Your task to perform on an android device: delete the emails in spam in the gmail app Image 0: 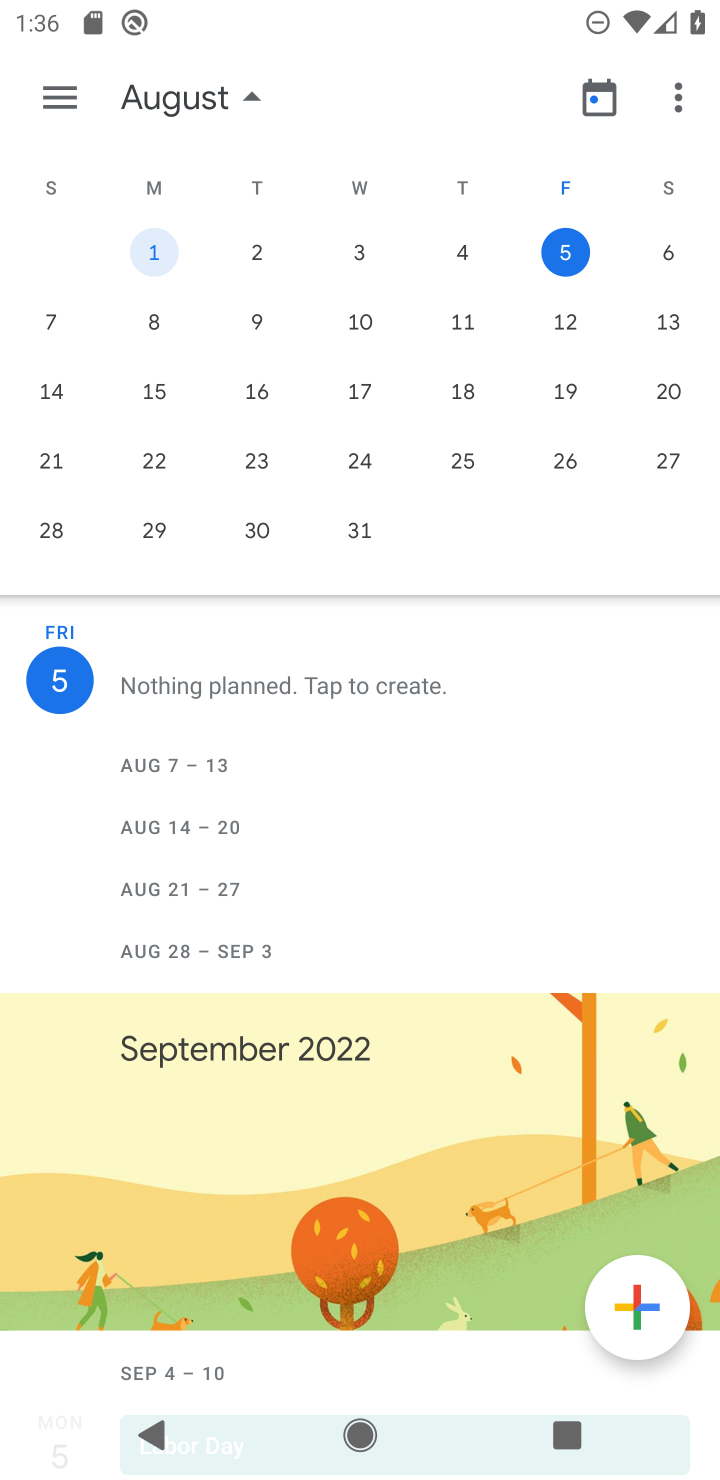
Step 0: press back button
Your task to perform on an android device: delete the emails in spam in the gmail app Image 1: 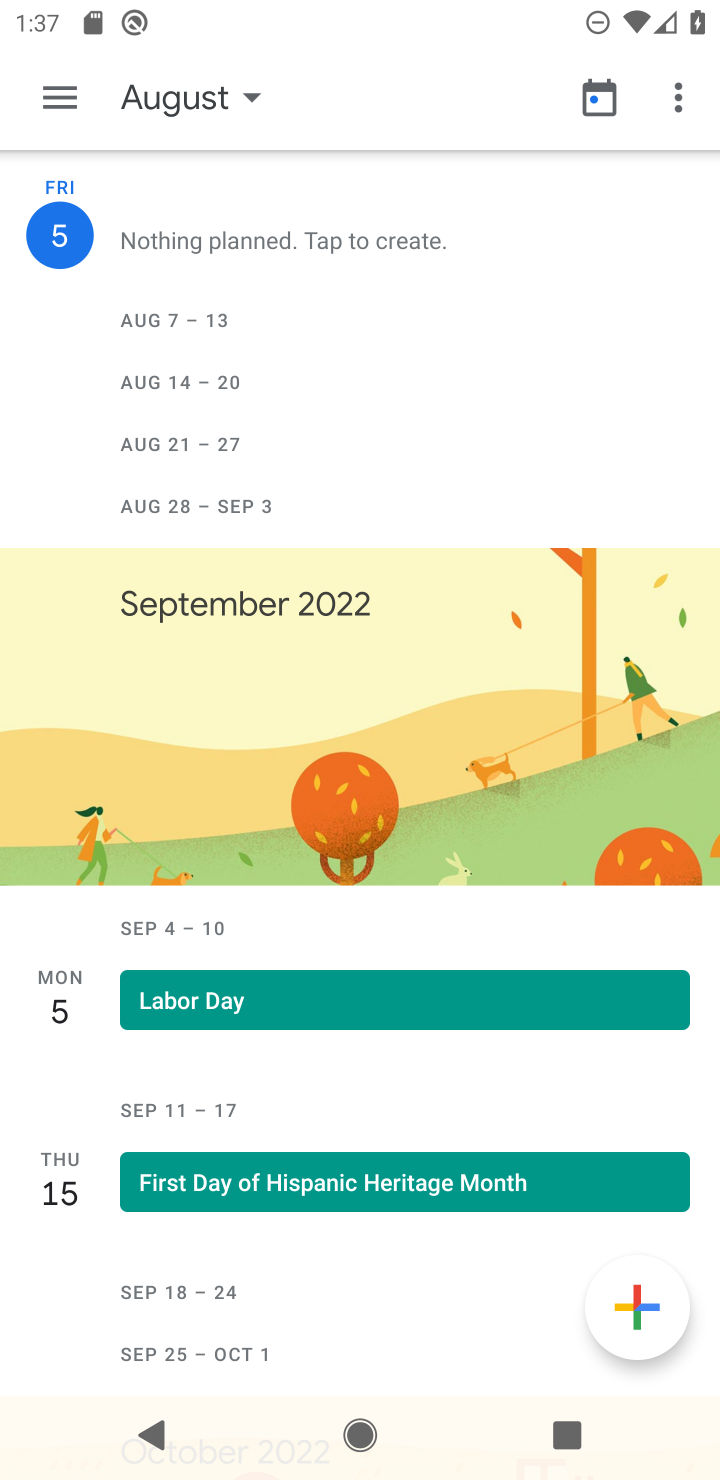
Step 1: press back button
Your task to perform on an android device: delete the emails in spam in the gmail app Image 2: 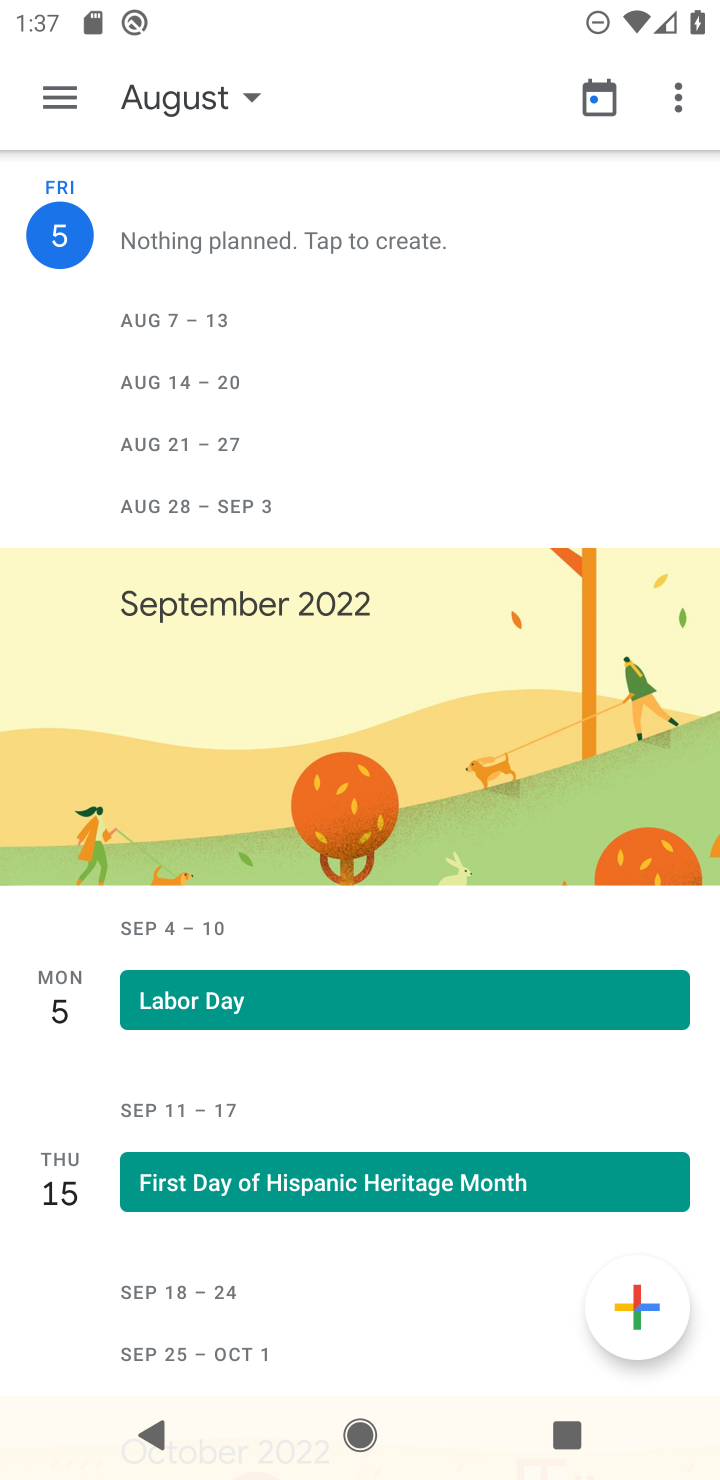
Step 2: press back button
Your task to perform on an android device: delete the emails in spam in the gmail app Image 3: 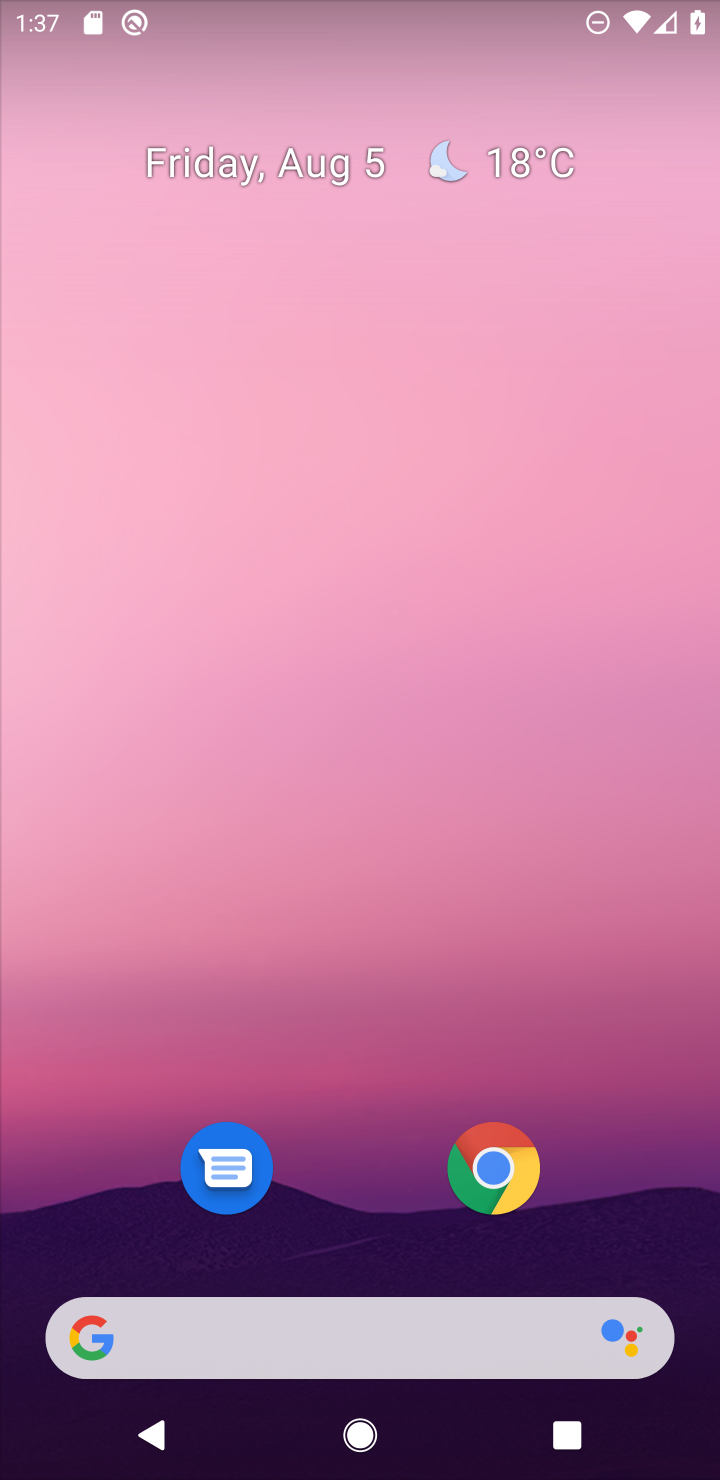
Step 3: drag from (385, 1206) to (584, 51)
Your task to perform on an android device: delete the emails in spam in the gmail app Image 4: 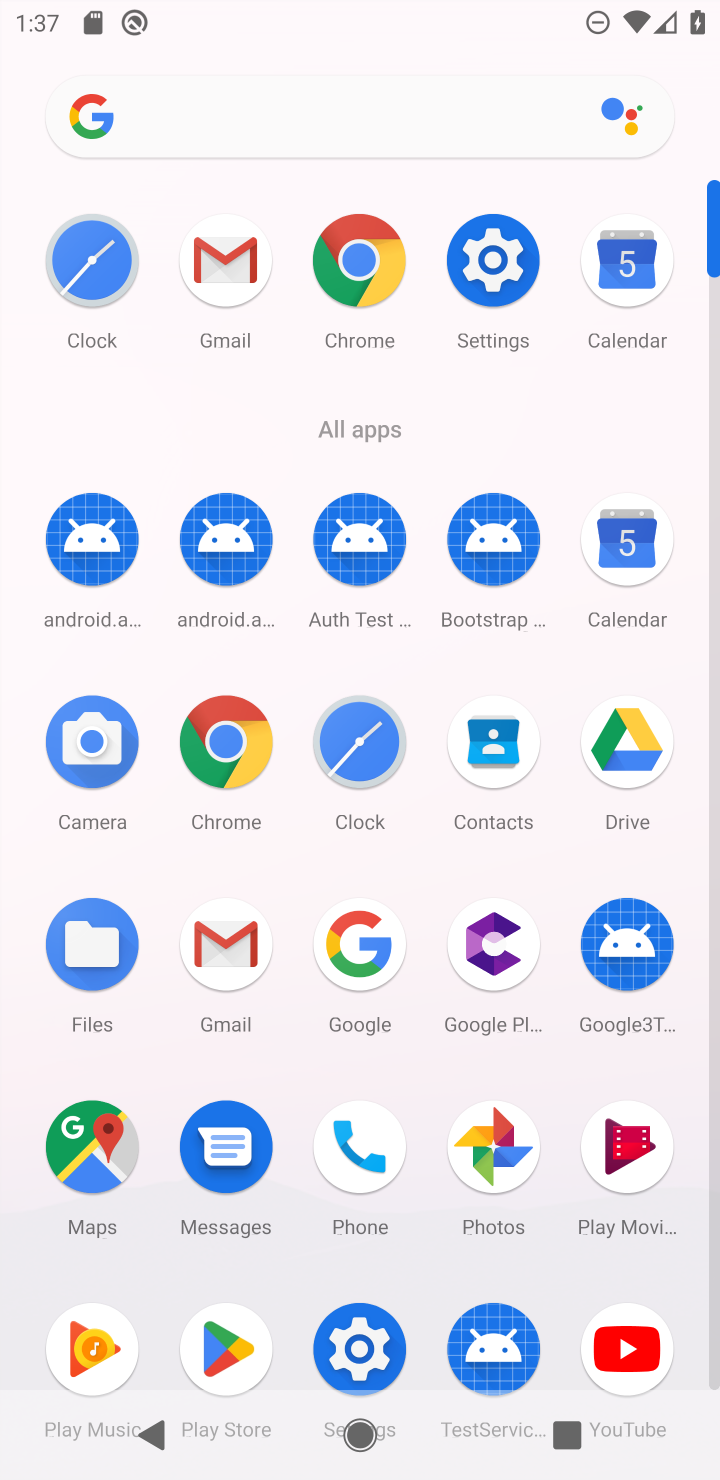
Step 4: click (226, 252)
Your task to perform on an android device: delete the emails in spam in the gmail app Image 5: 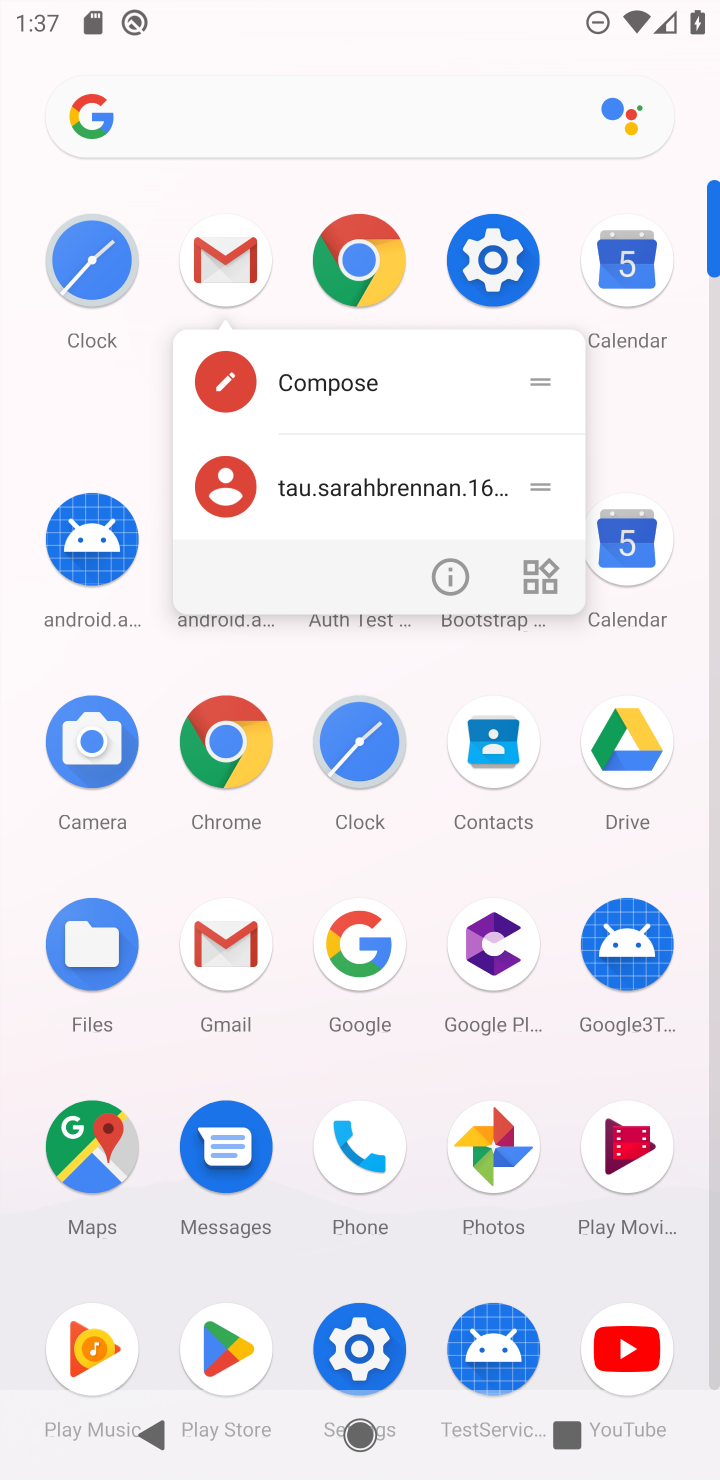
Step 5: click (225, 265)
Your task to perform on an android device: delete the emails in spam in the gmail app Image 6: 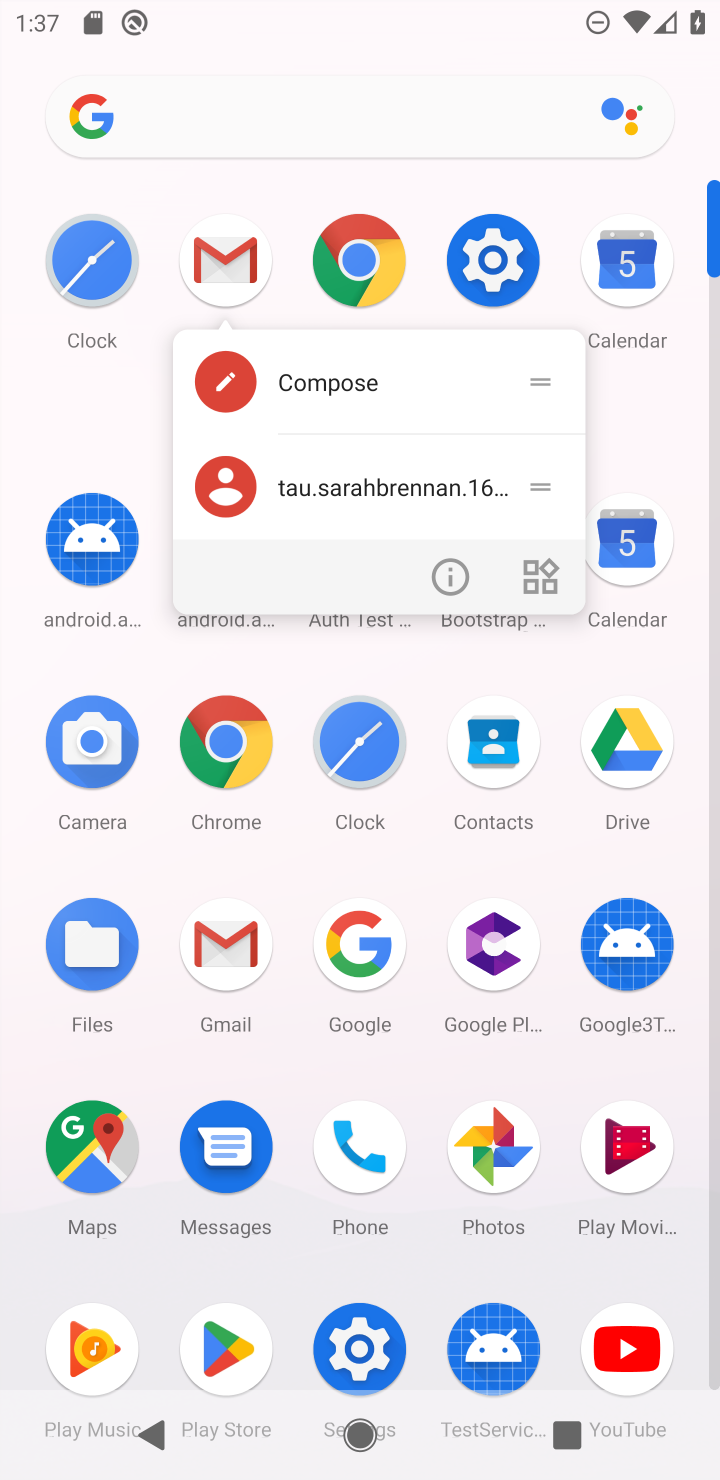
Step 6: click (211, 259)
Your task to perform on an android device: delete the emails in spam in the gmail app Image 7: 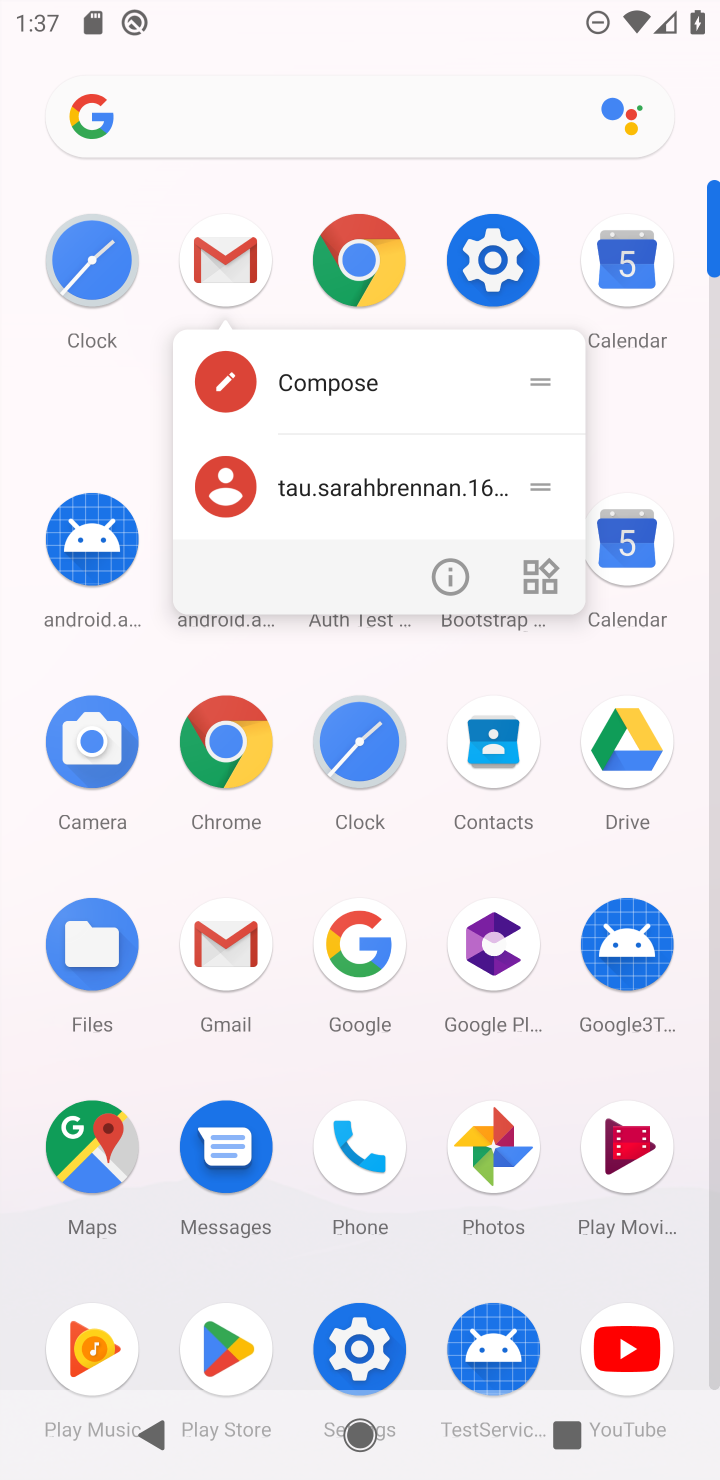
Step 7: click (213, 255)
Your task to perform on an android device: delete the emails in spam in the gmail app Image 8: 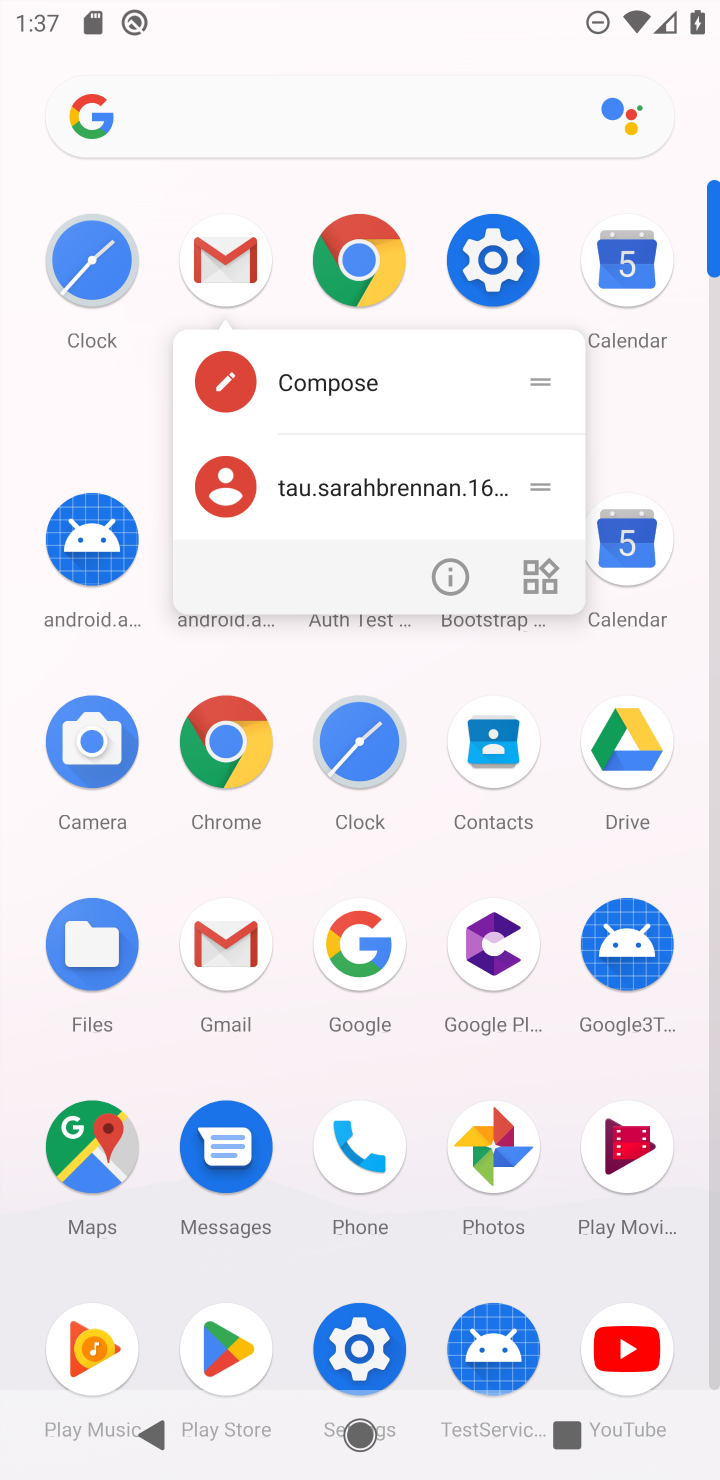
Step 8: click (227, 238)
Your task to perform on an android device: delete the emails in spam in the gmail app Image 9: 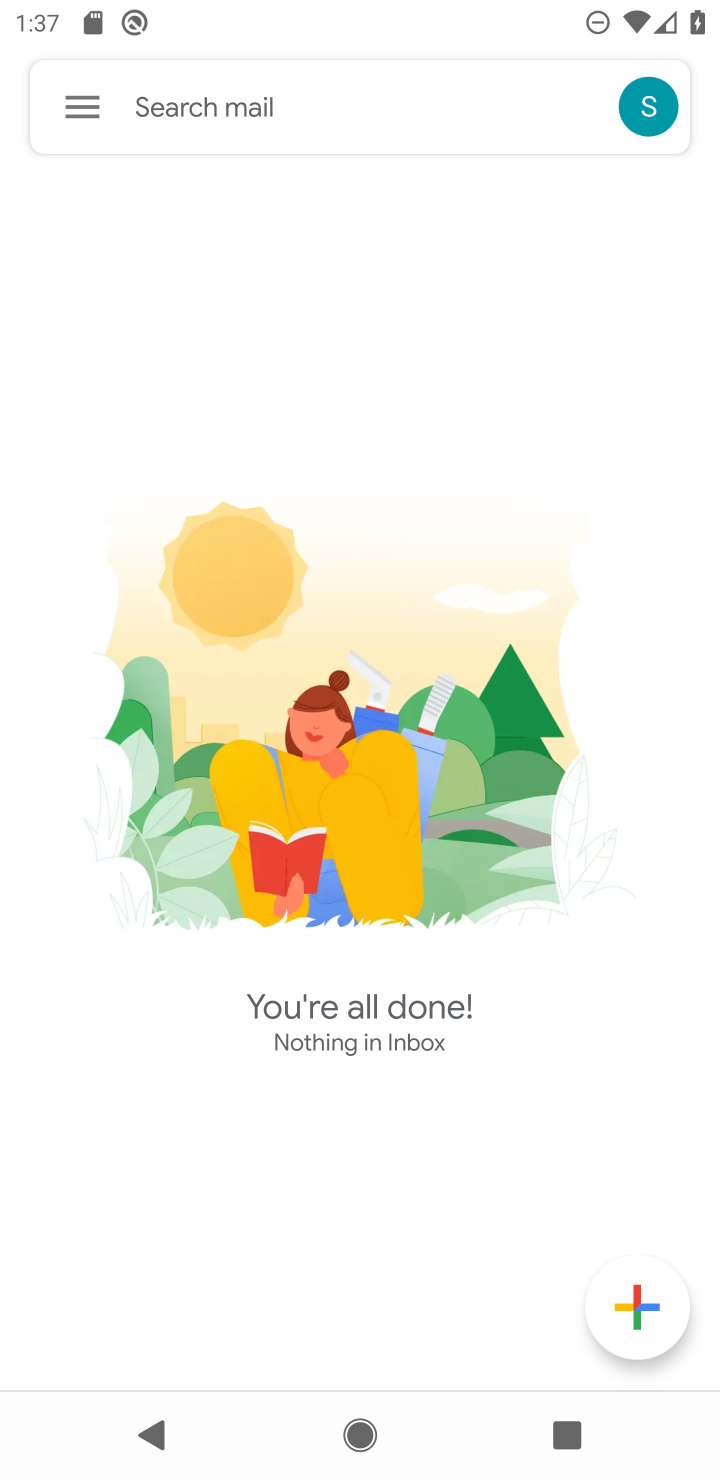
Step 9: click (87, 114)
Your task to perform on an android device: delete the emails in spam in the gmail app Image 10: 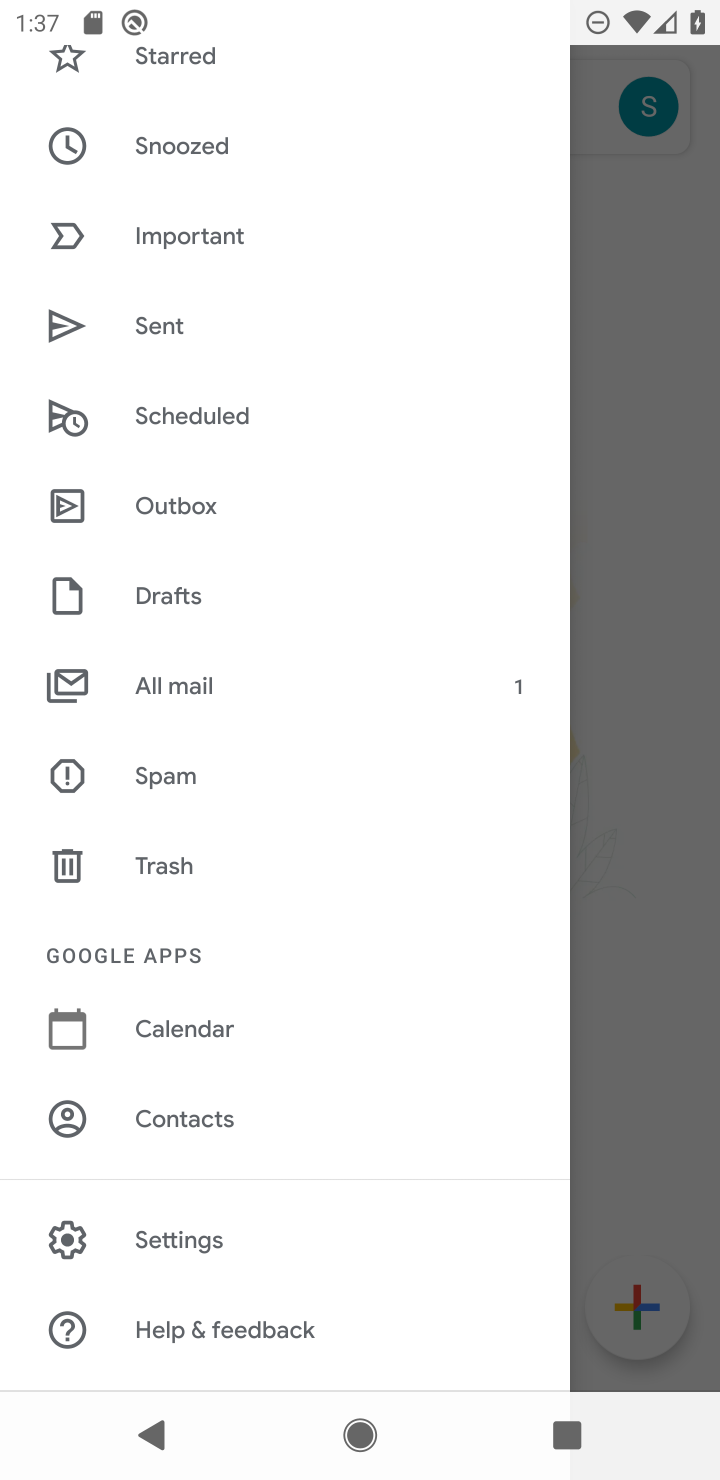
Step 10: click (191, 790)
Your task to perform on an android device: delete the emails in spam in the gmail app Image 11: 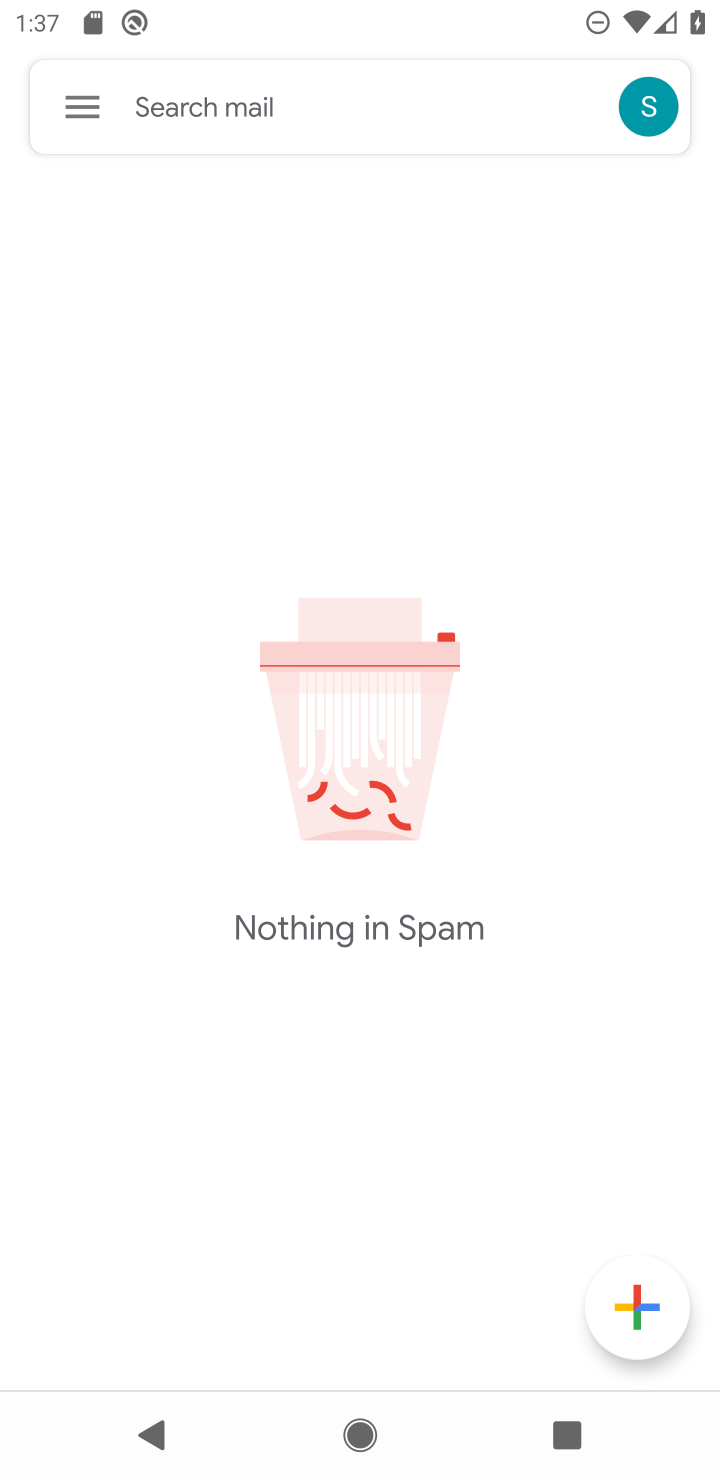
Step 11: task complete